Your task to perform on an android device: toggle show notifications on the lock screen Image 0: 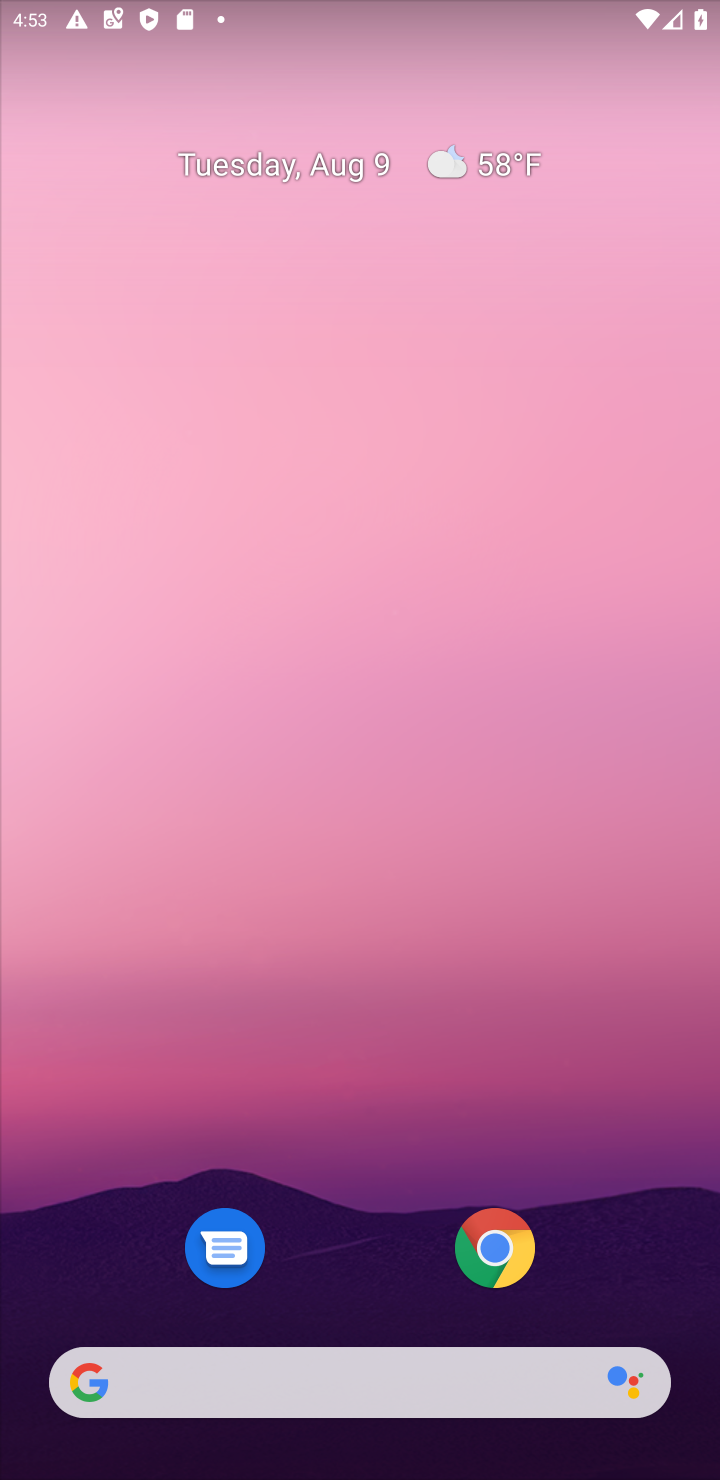
Step 0: drag from (312, 783) to (296, 272)
Your task to perform on an android device: toggle show notifications on the lock screen Image 1: 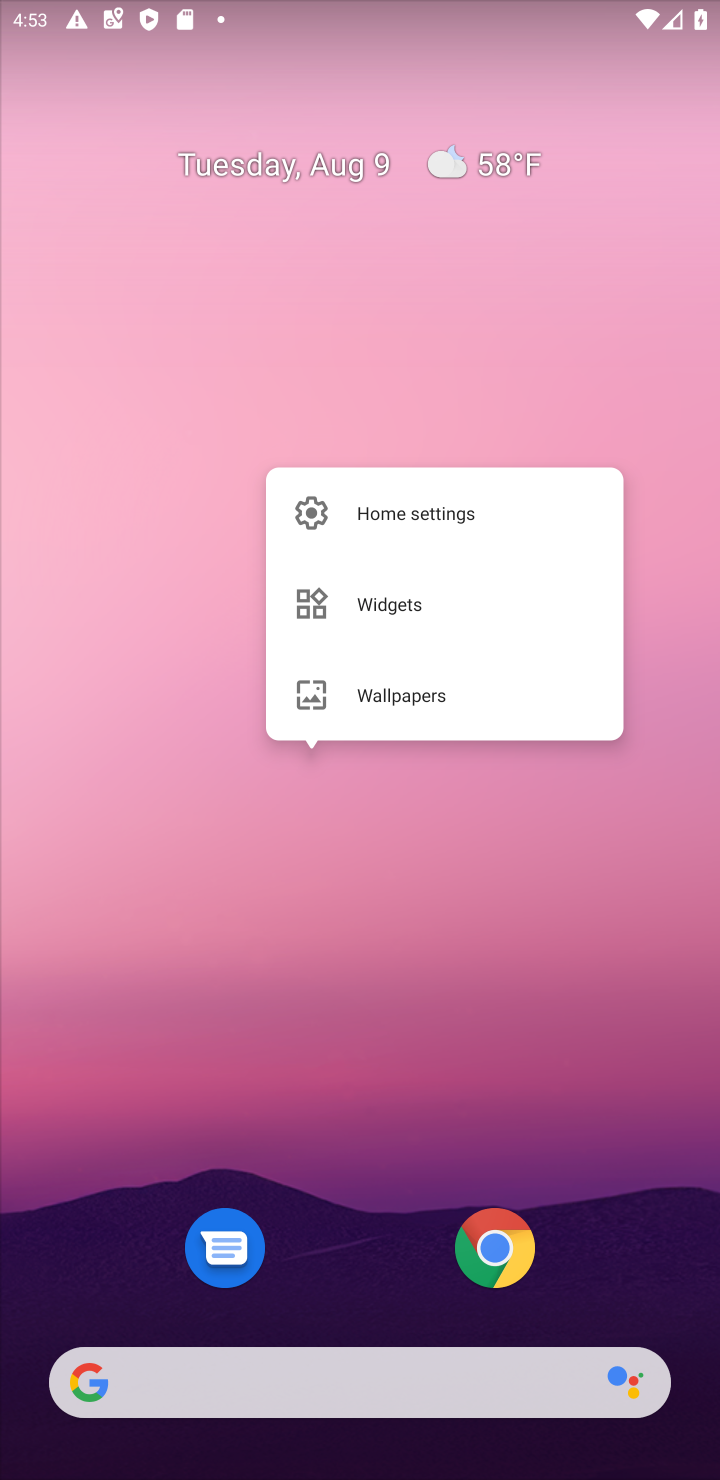
Step 1: click (266, 957)
Your task to perform on an android device: toggle show notifications on the lock screen Image 2: 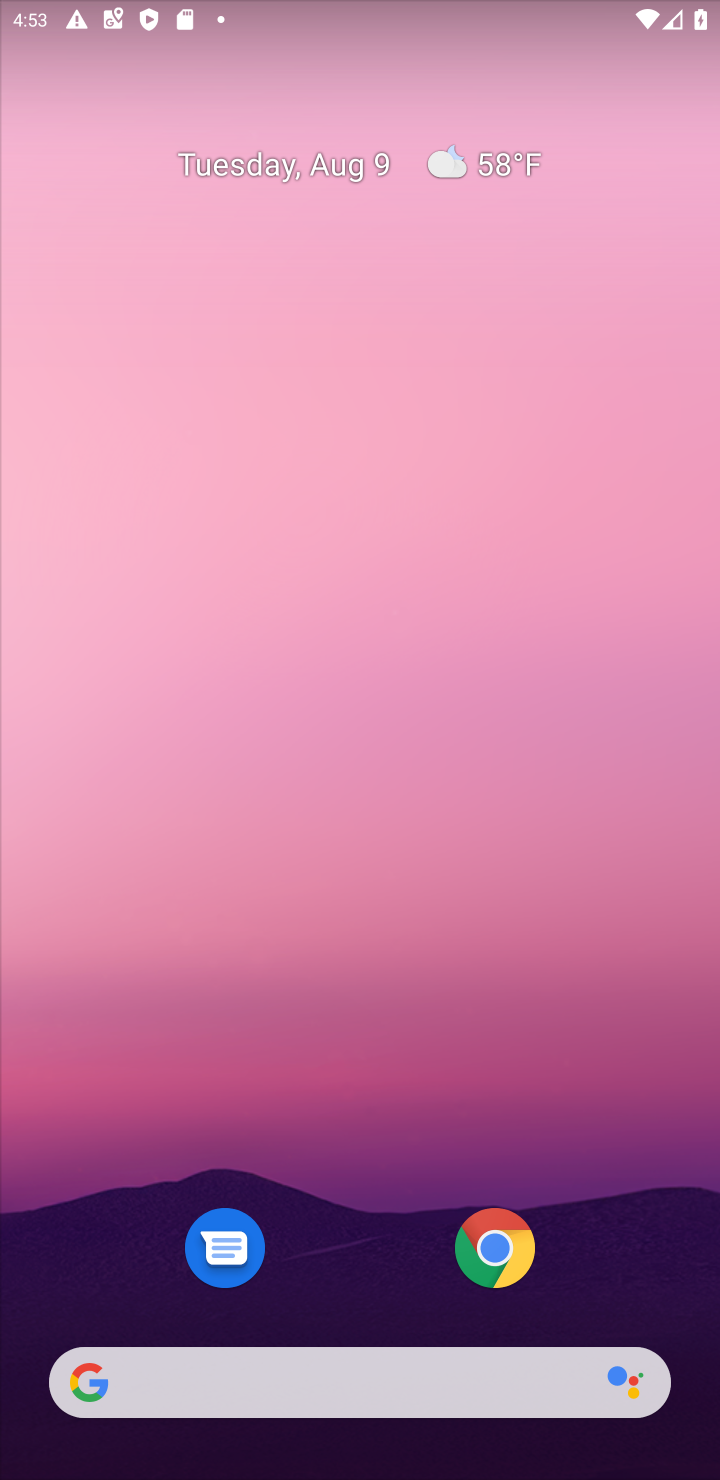
Step 2: drag from (344, 948) to (362, 264)
Your task to perform on an android device: toggle show notifications on the lock screen Image 3: 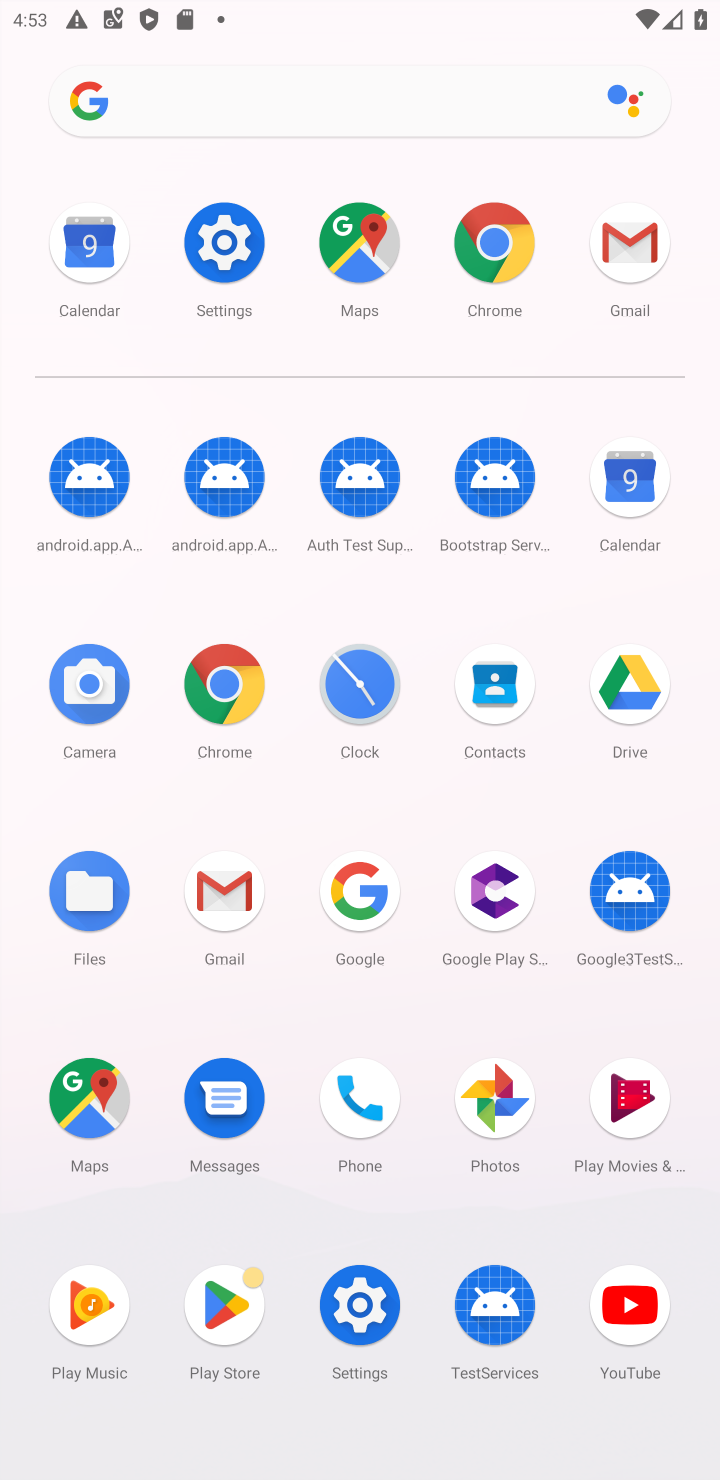
Step 3: click (350, 1304)
Your task to perform on an android device: toggle show notifications on the lock screen Image 4: 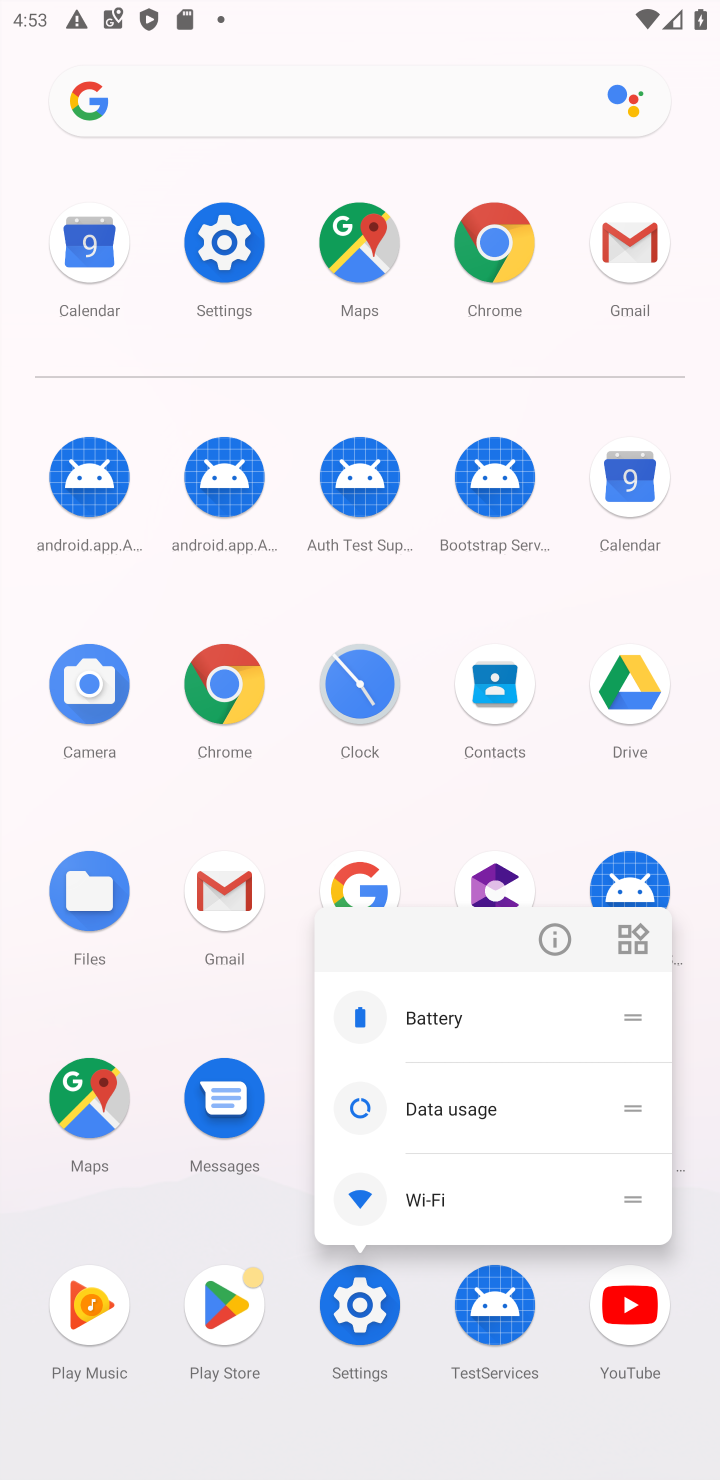
Step 4: click (350, 1304)
Your task to perform on an android device: toggle show notifications on the lock screen Image 5: 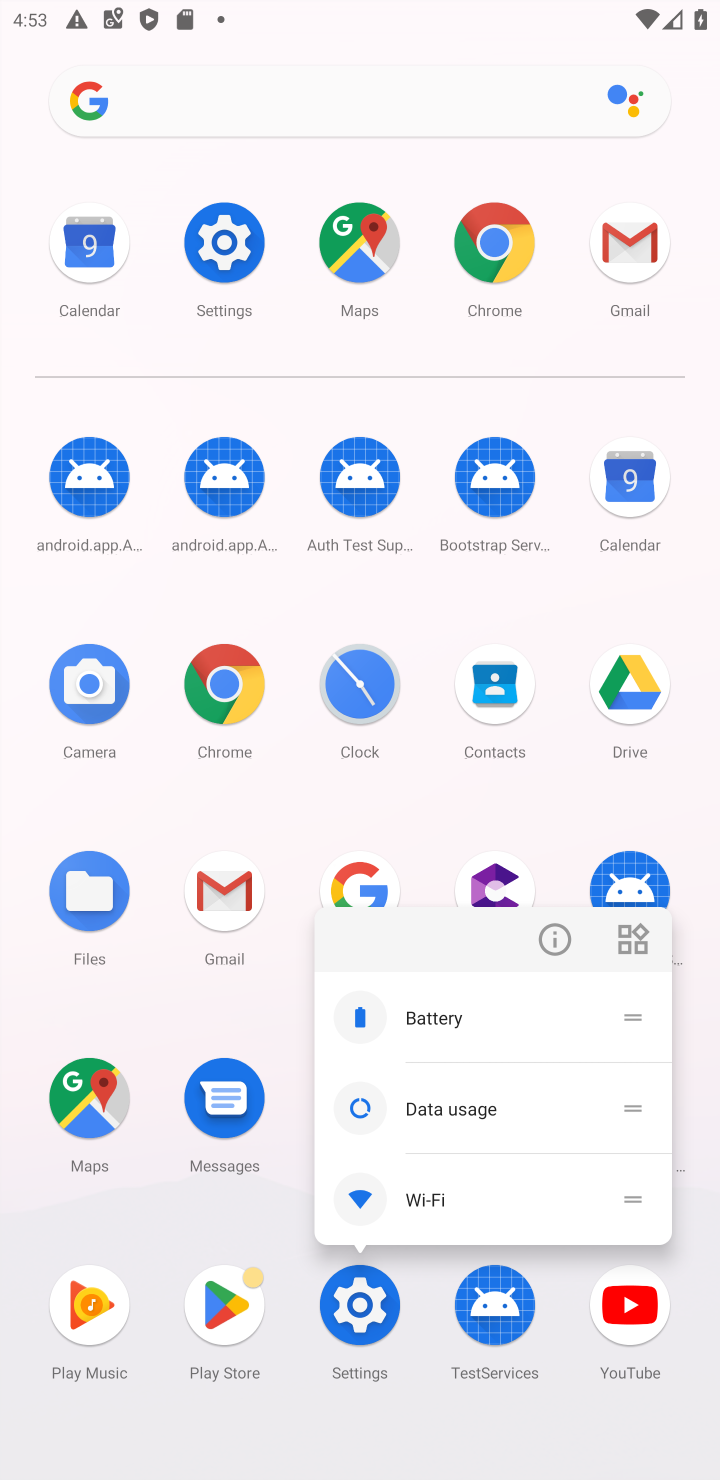
Step 5: click (350, 1304)
Your task to perform on an android device: toggle show notifications on the lock screen Image 6: 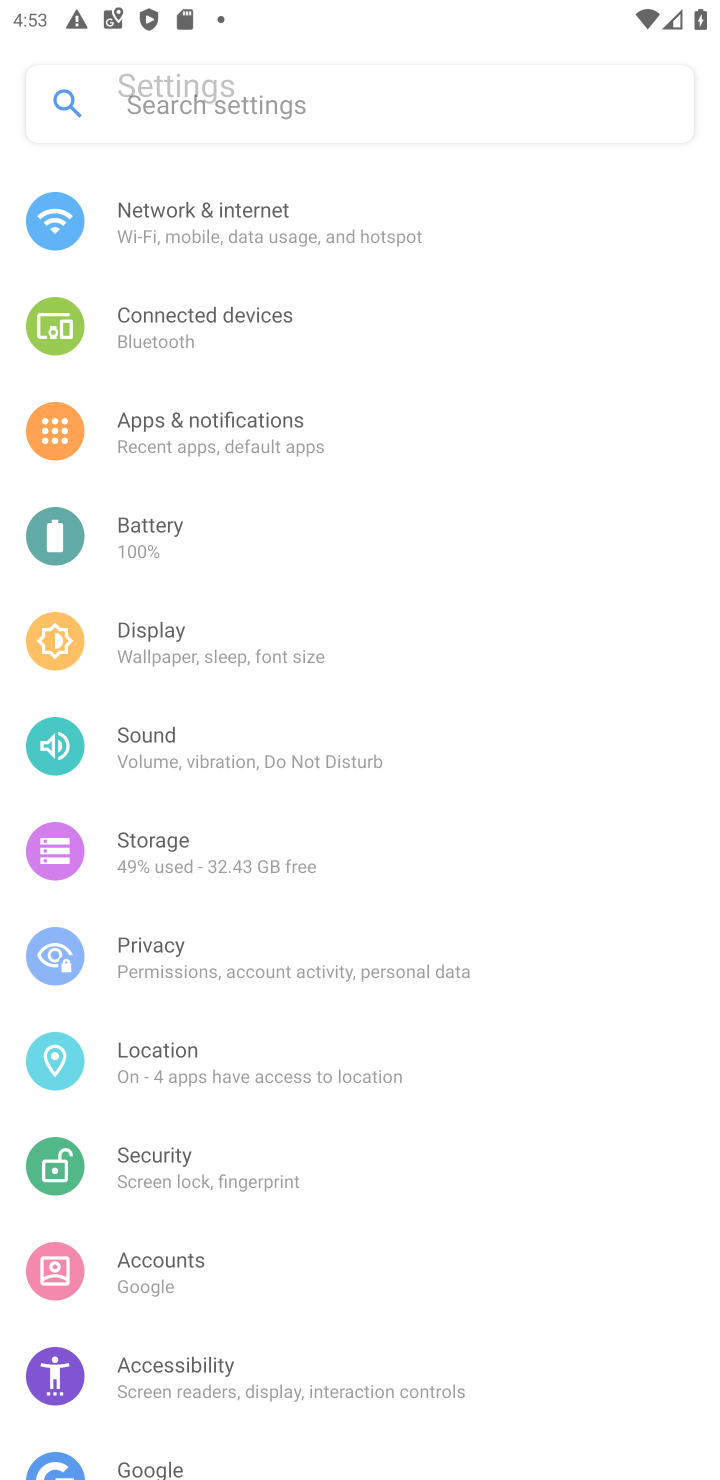
Step 6: click (350, 1304)
Your task to perform on an android device: toggle show notifications on the lock screen Image 7: 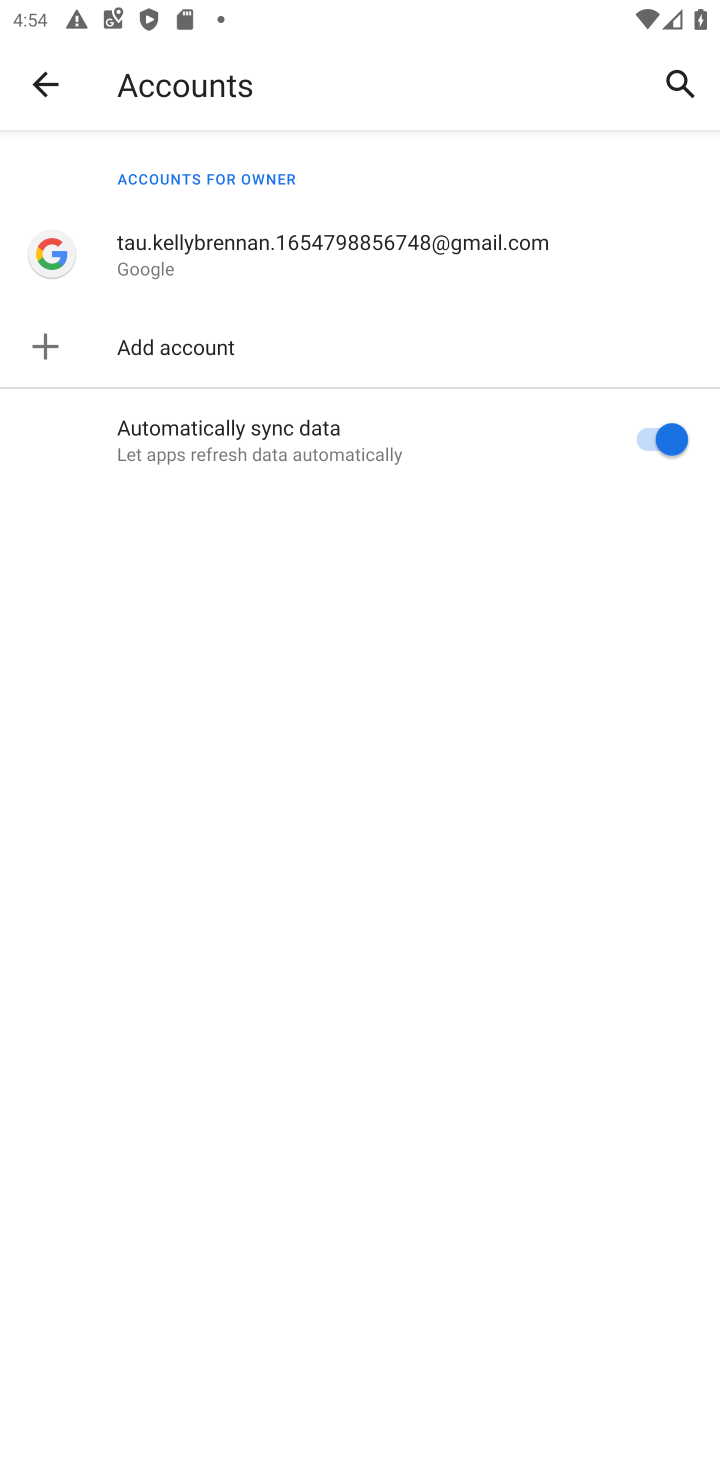
Step 7: press back button
Your task to perform on an android device: toggle show notifications on the lock screen Image 8: 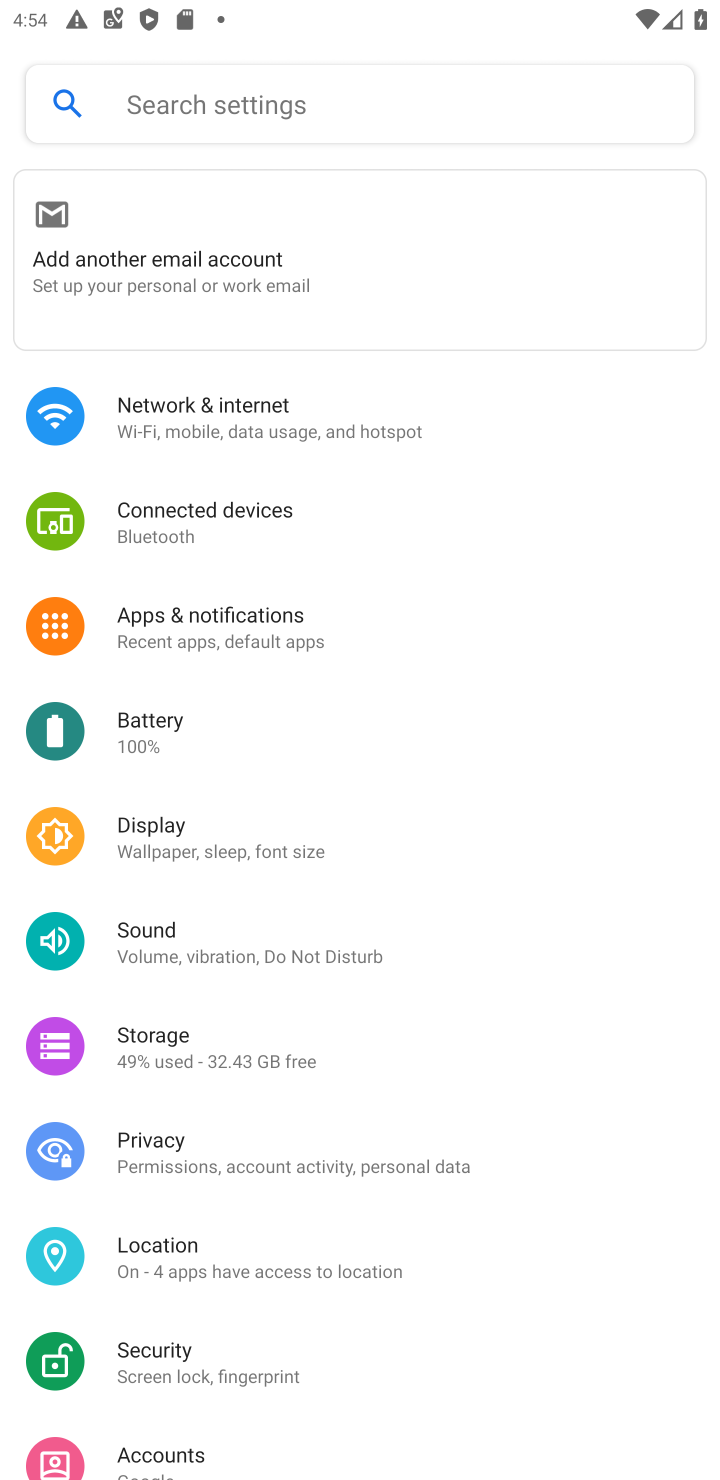
Step 8: click (278, 634)
Your task to perform on an android device: toggle show notifications on the lock screen Image 9: 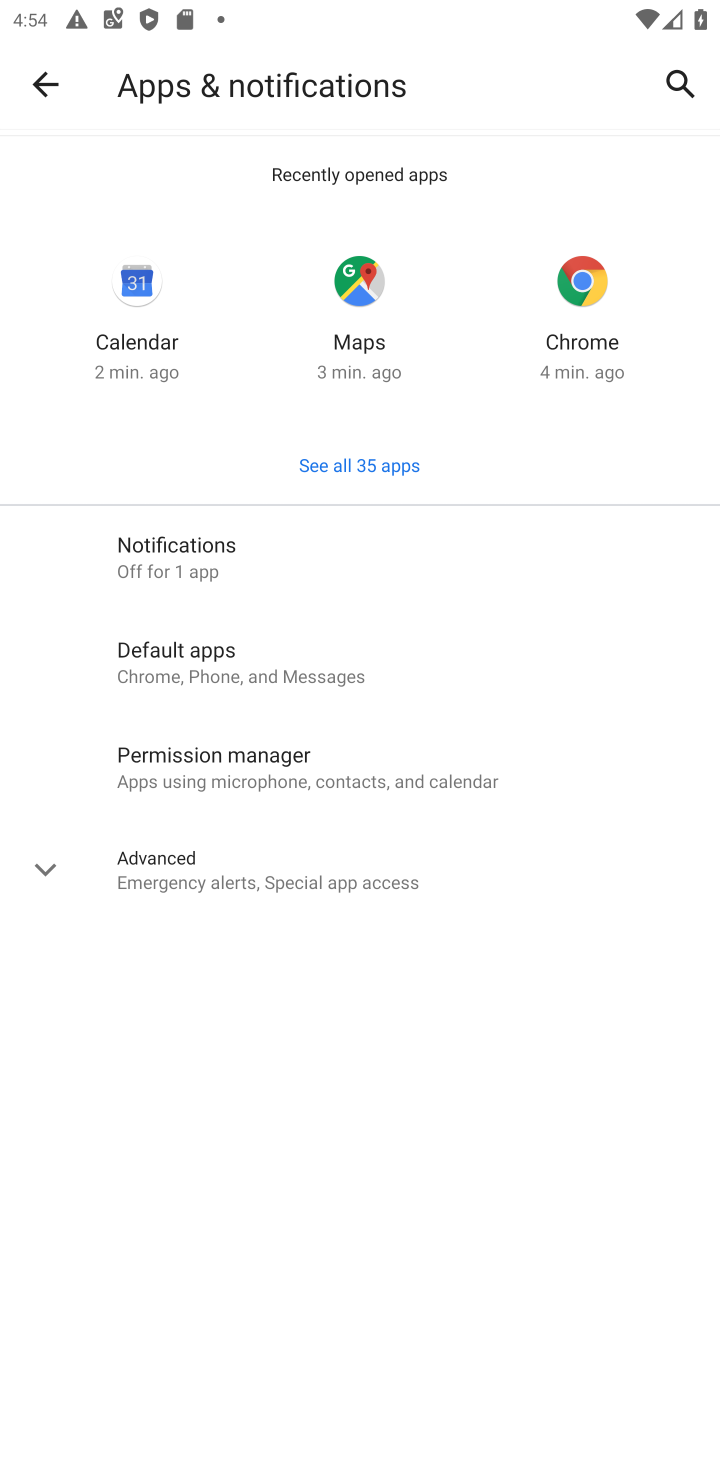
Step 9: click (238, 561)
Your task to perform on an android device: toggle show notifications on the lock screen Image 10: 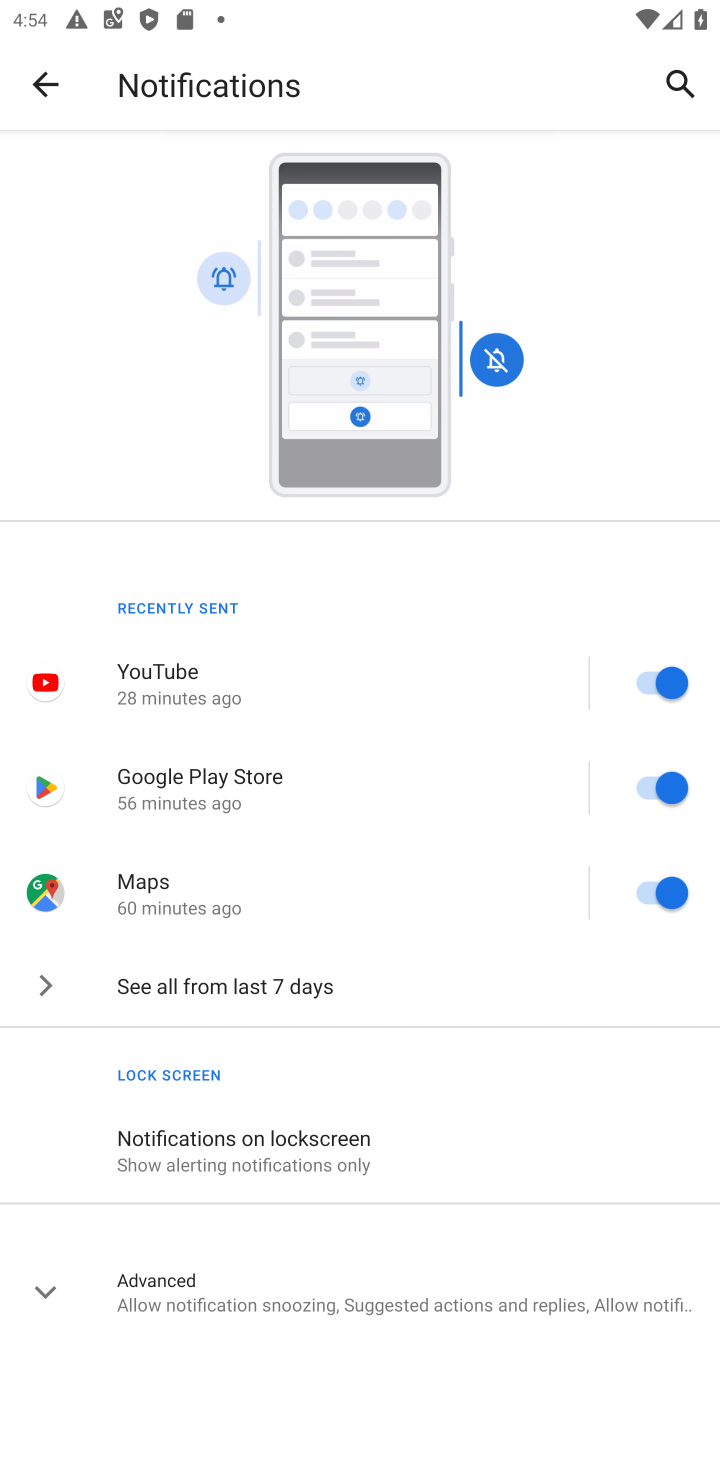
Step 10: click (339, 1135)
Your task to perform on an android device: toggle show notifications on the lock screen Image 11: 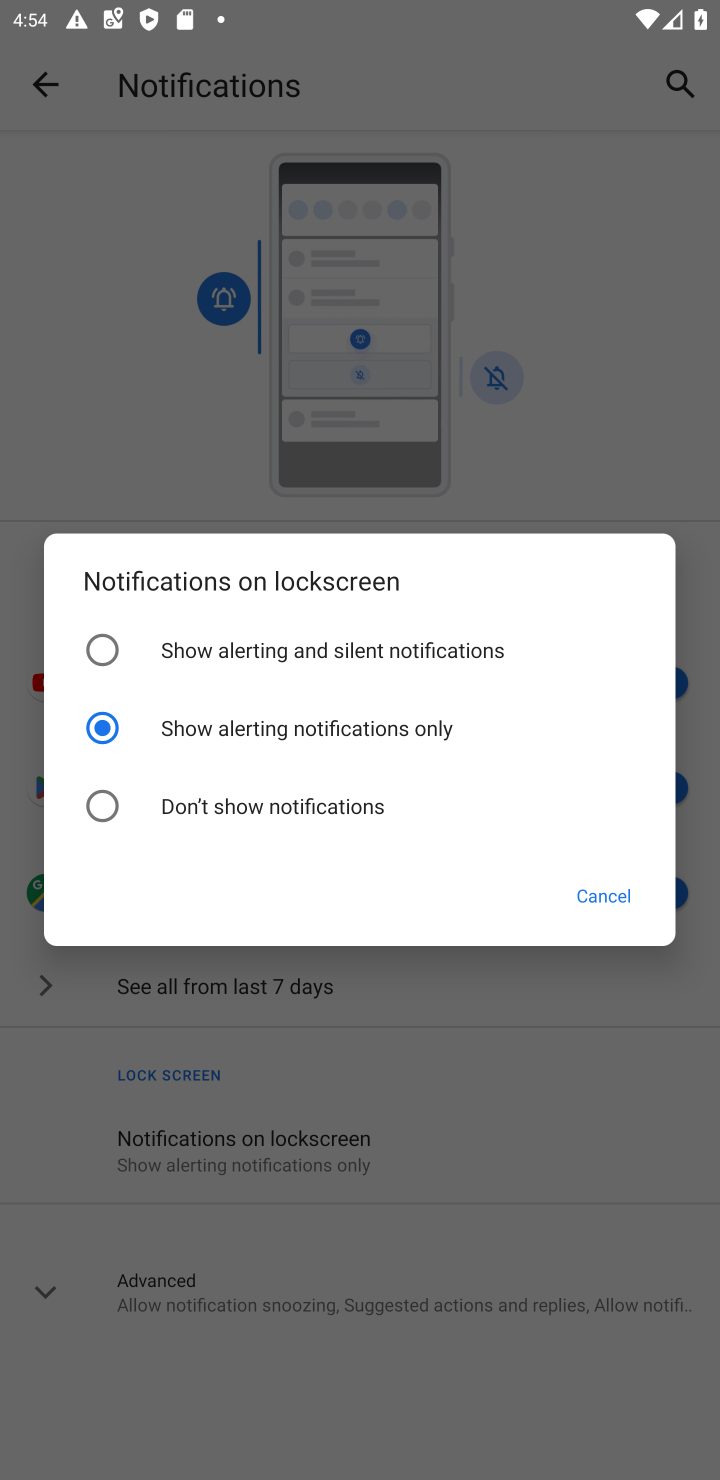
Step 11: click (233, 798)
Your task to perform on an android device: toggle show notifications on the lock screen Image 12: 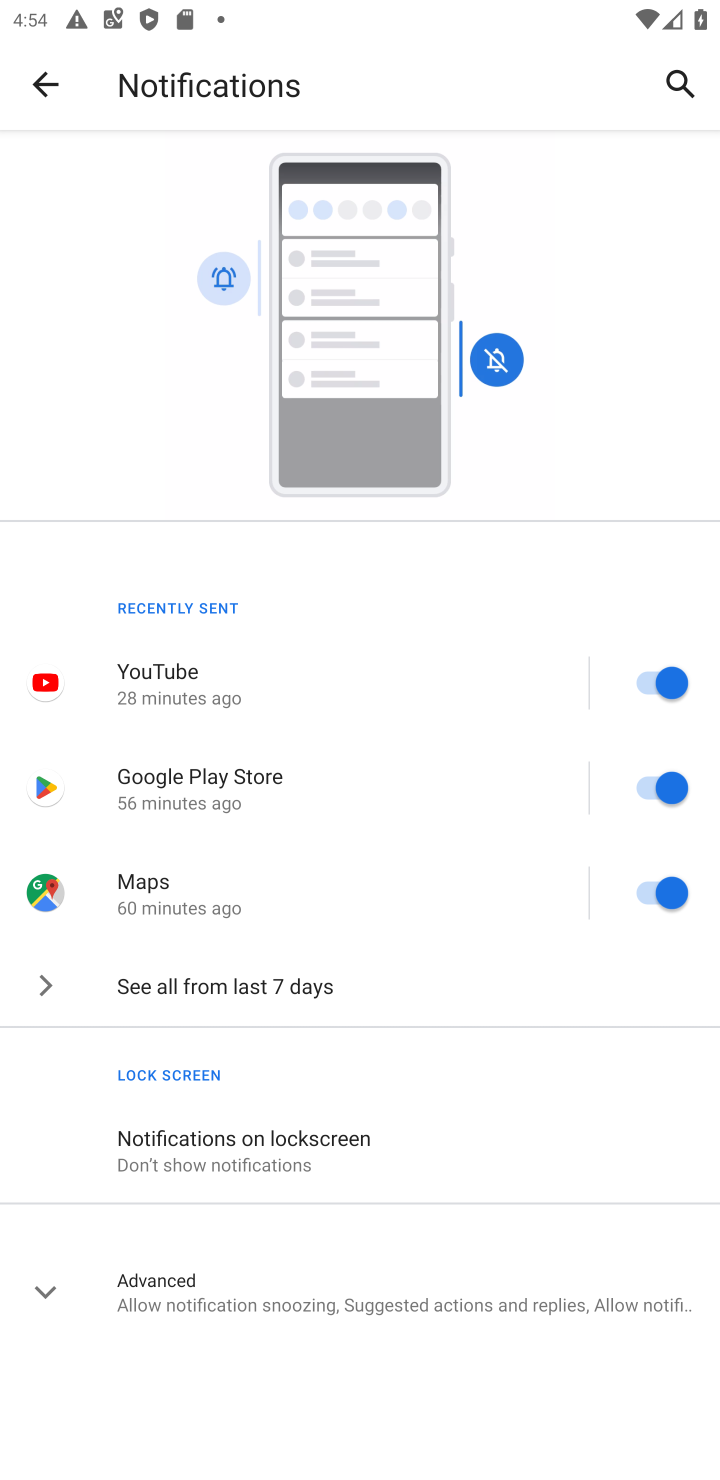
Step 12: task complete